Your task to perform on an android device: open chrome privacy settings Image 0: 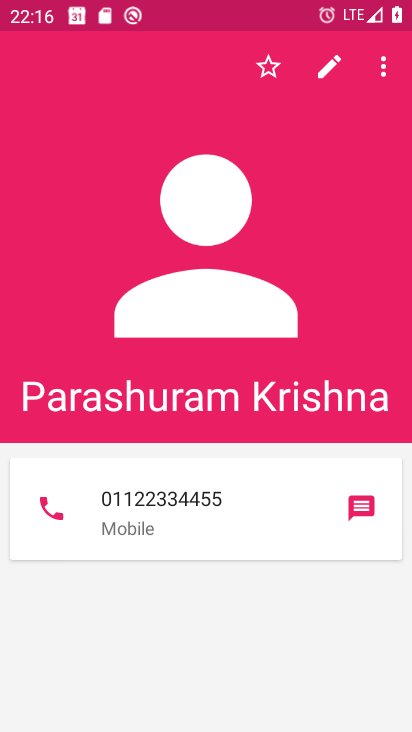
Step 0: press home button
Your task to perform on an android device: open chrome privacy settings Image 1: 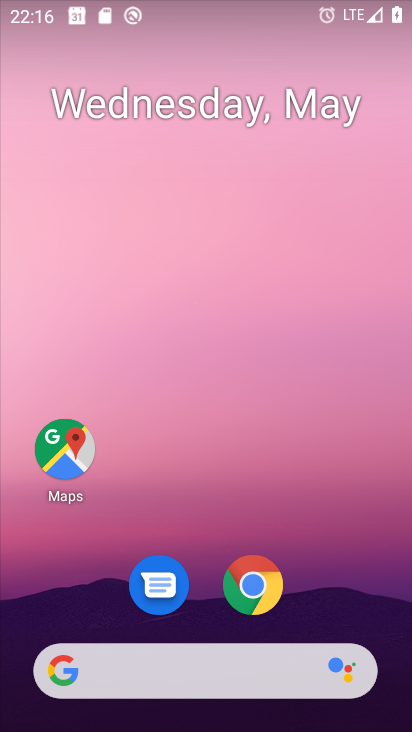
Step 1: click (267, 589)
Your task to perform on an android device: open chrome privacy settings Image 2: 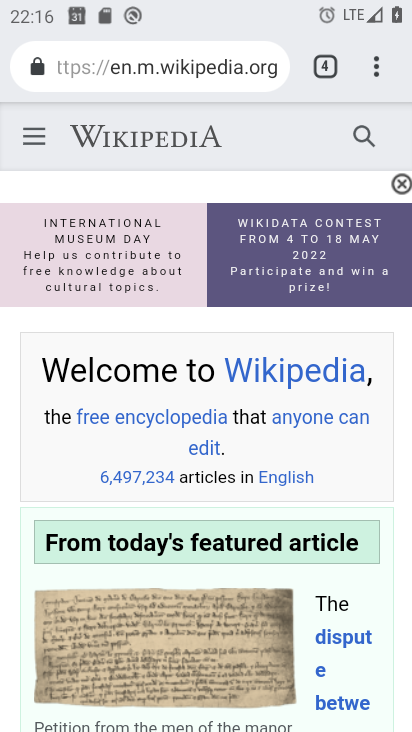
Step 2: click (369, 63)
Your task to perform on an android device: open chrome privacy settings Image 3: 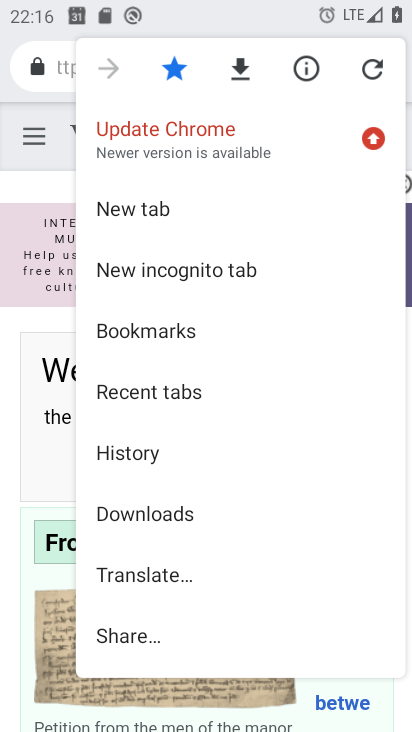
Step 3: drag from (267, 510) to (255, 168)
Your task to perform on an android device: open chrome privacy settings Image 4: 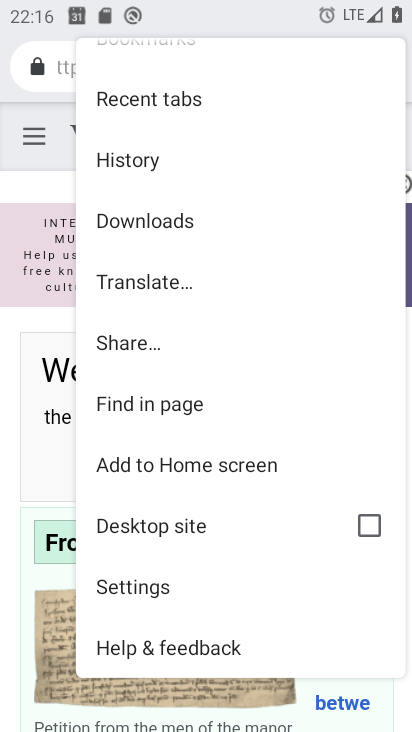
Step 4: click (196, 586)
Your task to perform on an android device: open chrome privacy settings Image 5: 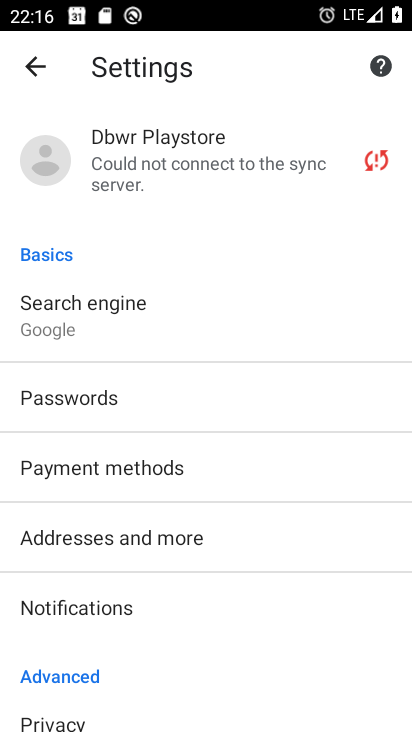
Step 5: drag from (299, 518) to (302, 283)
Your task to perform on an android device: open chrome privacy settings Image 6: 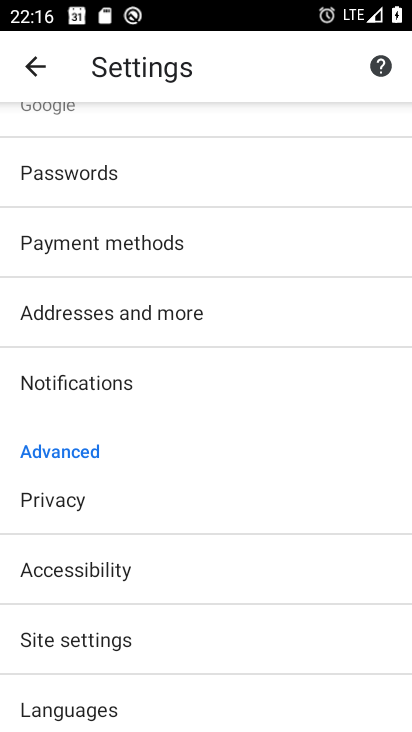
Step 6: click (152, 511)
Your task to perform on an android device: open chrome privacy settings Image 7: 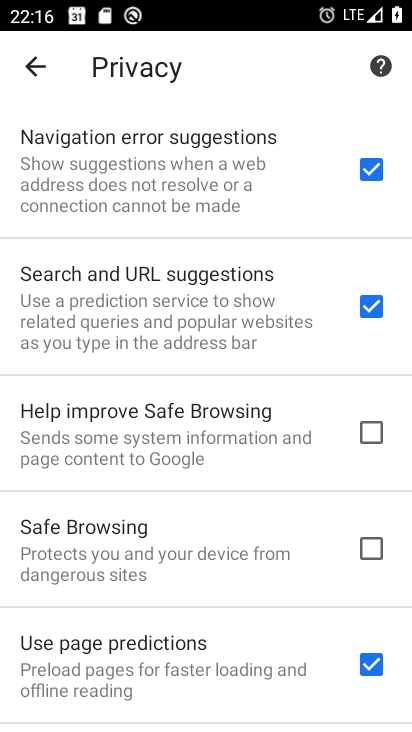
Step 7: task complete